Your task to perform on an android device: Go to wifi settings Image 0: 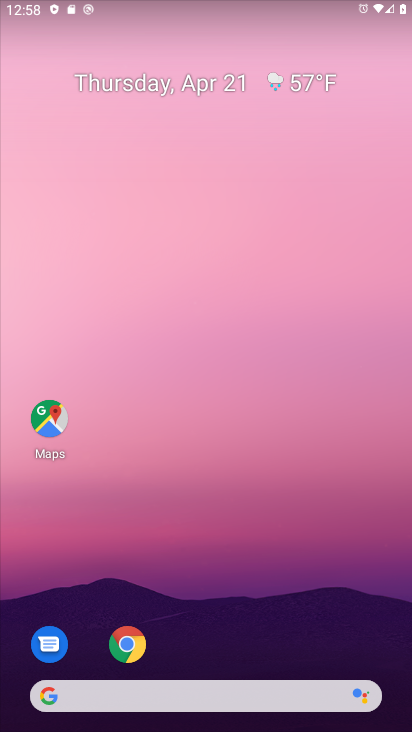
Step 0: drag from (202, 669) to (124, 29)
Your task to perform on an android device: Go to wifi settings Image 1: 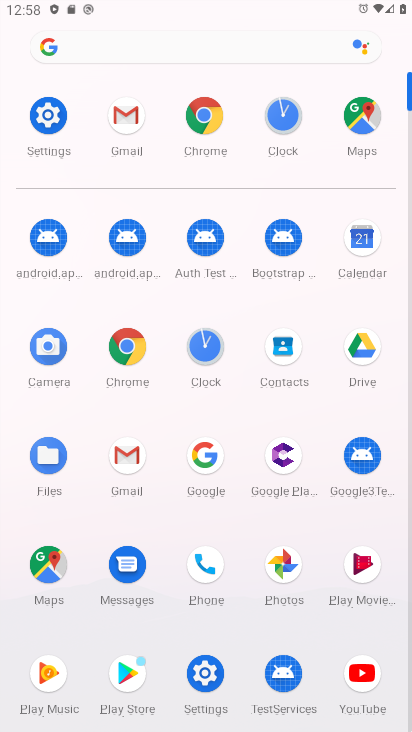
Step 1: click (202, 687)
Your task to perform on an android device: Go to wifi settings Image 2: 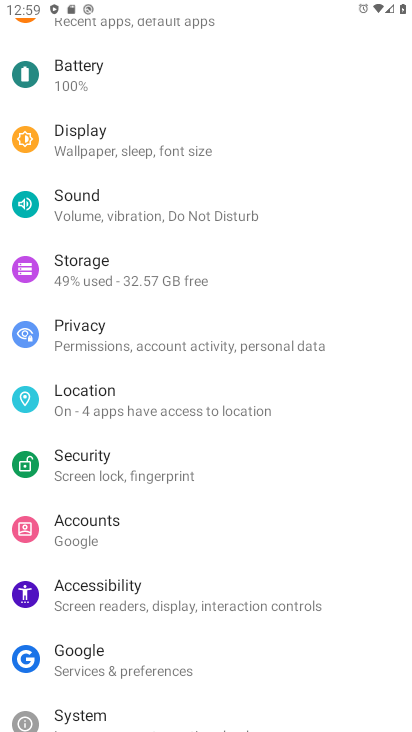
Step 2: drag from (99, 156) to (105, 512)
Your task to perform on an android device: Go to wifi settings Image 3: 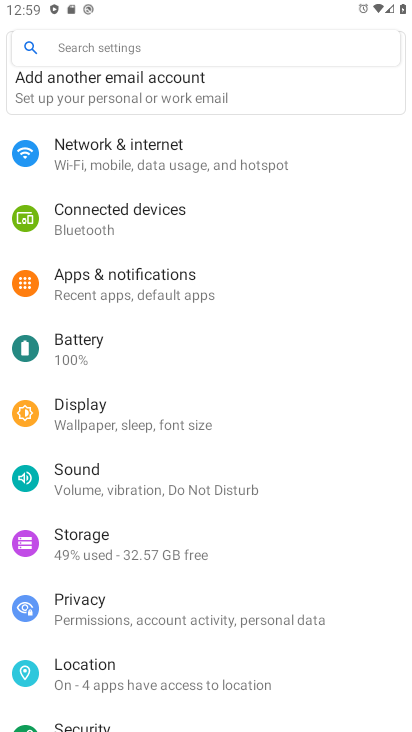
Step 3: click (196, 160)
Your task to perform on an android device: Go to wifi settings Image 4: 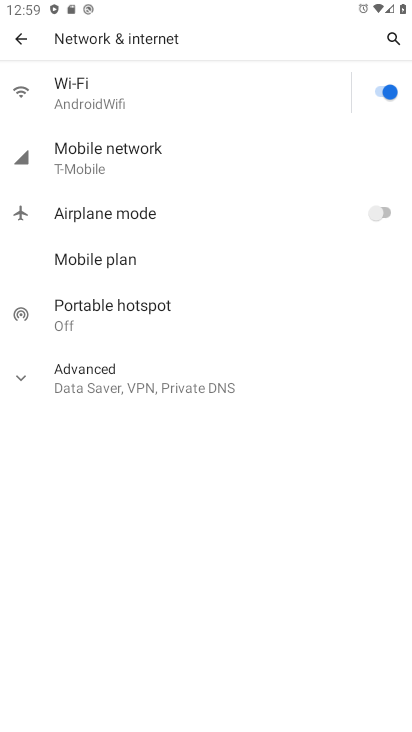
Step 4: click (117, 97)
Your task to perform on an android device: Go to wifi settings Image 5: 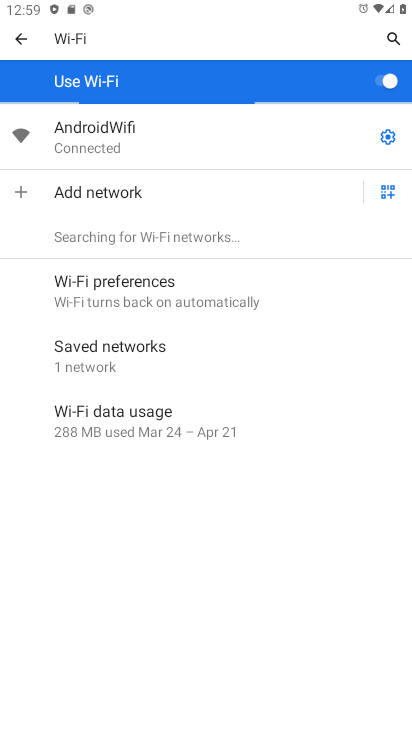
Step 5: task complete